Your task to perform on an android device: Search for flights from Tokyo to Seoul Image 0: 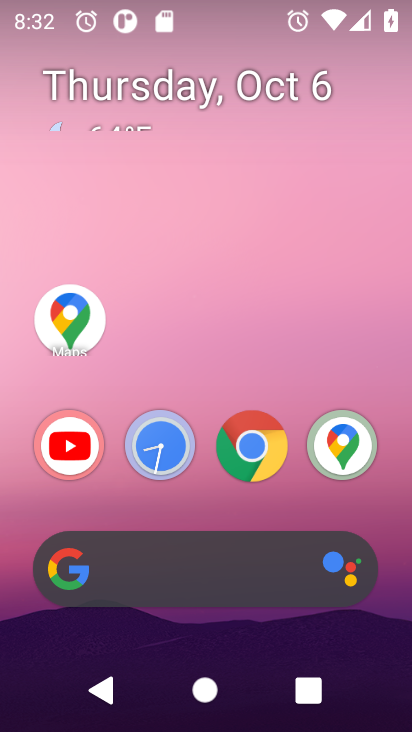
Step 0: click (210, 574)
Your task to perform on an android device: Search for flights from Tokyo to Seoul Image 1: 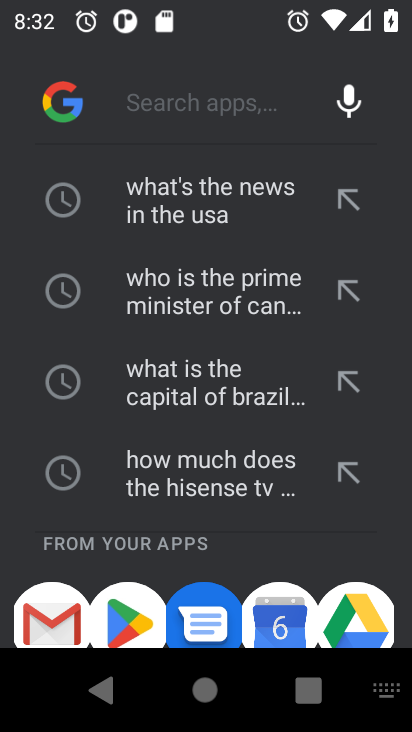
Step 1: type "Search for flights from Tokyo to Seoul"
Your task to perform on an android device: Search for flights from Tokyo to Seoul Image 2: 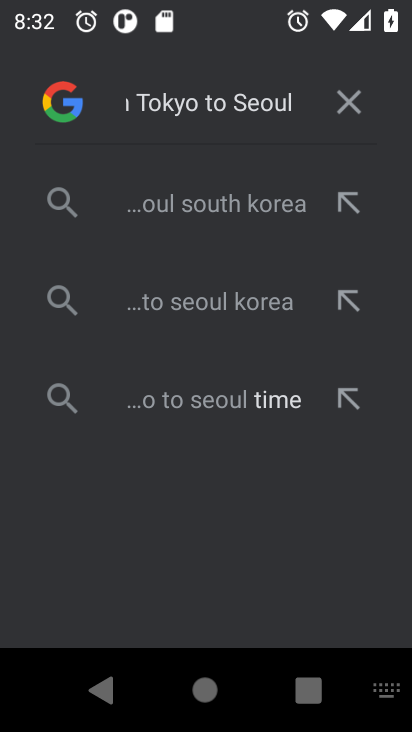
Step 2: click (197, 200)
Your task to perform on an android device: Search for flights from Tokyo to Seoul Image 3: 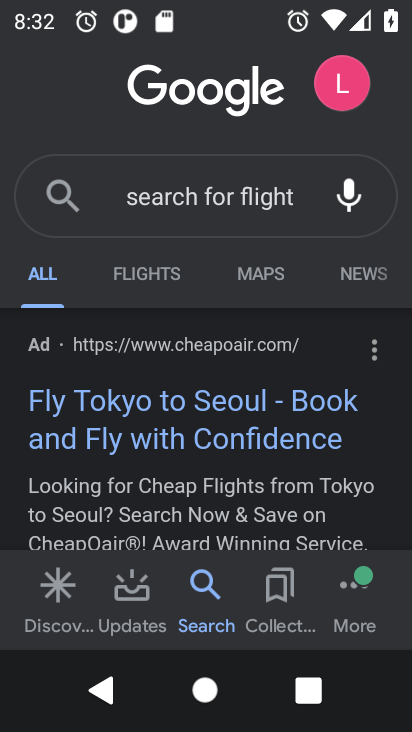
Step 3: click (92, 424)
Your task to perform on an android device: Search for flights from Tokyo to Seoul Image 4: 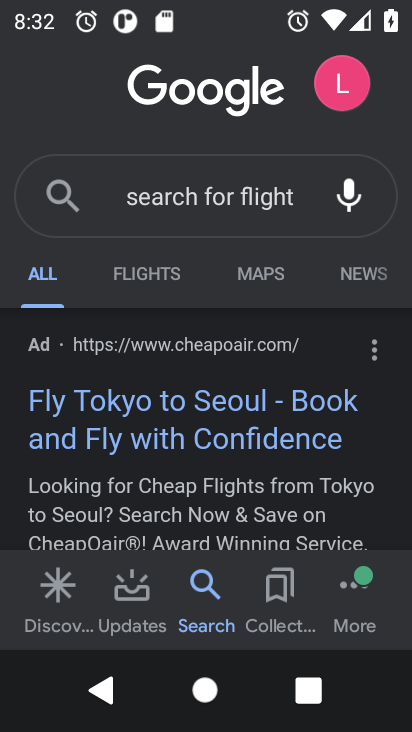
Step 4: task complete